Your task to perform on an android device: move a message to another label in the gmail app Image 0: 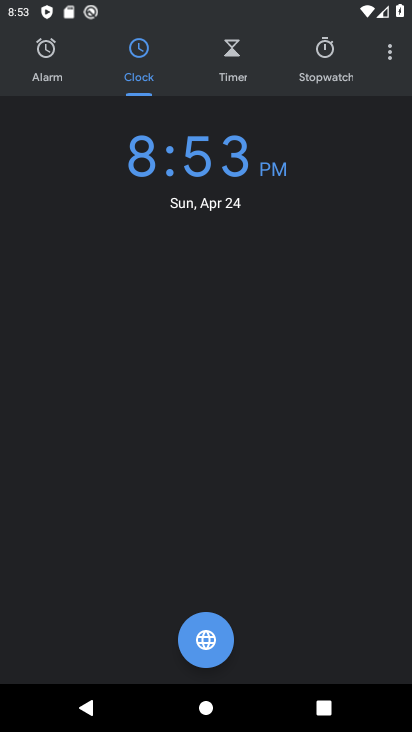
Step 0: press home button
Your task to perform on an android device: move a message to another label in the gmail app Image 1: 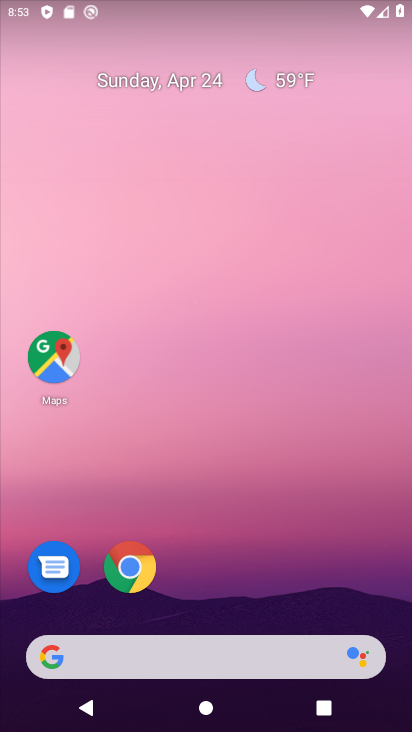
Step 1: drag from (377, 566) to (363, 115)
Your task to perform on an android device: move a message to another label in the gmail app Image 2: 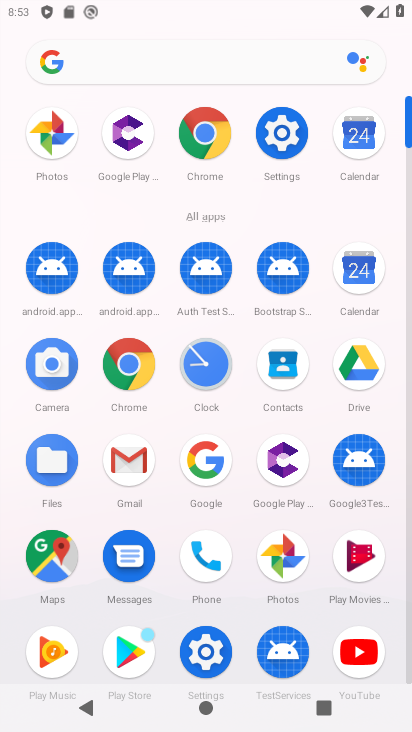
Step 2: click (112, 453)
Your task to perform on an android device: move a message to another label in the gmail app Image 3: 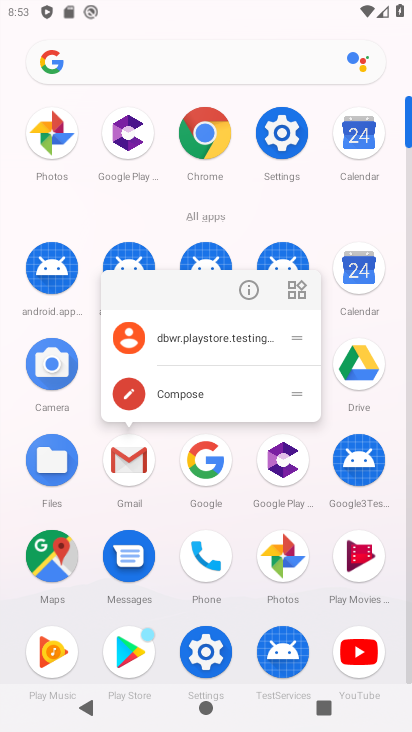
Step 3: click (133, 455)
Your task to perform on an android device: move a message to another label in the gmail app Image 4: 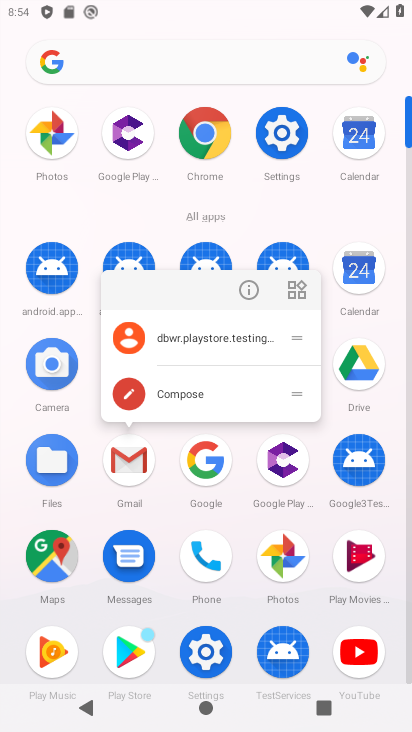
Step 4: click (133, 455)
Your task to perform on an android device: move a message to another label in the gmail app Image 5: 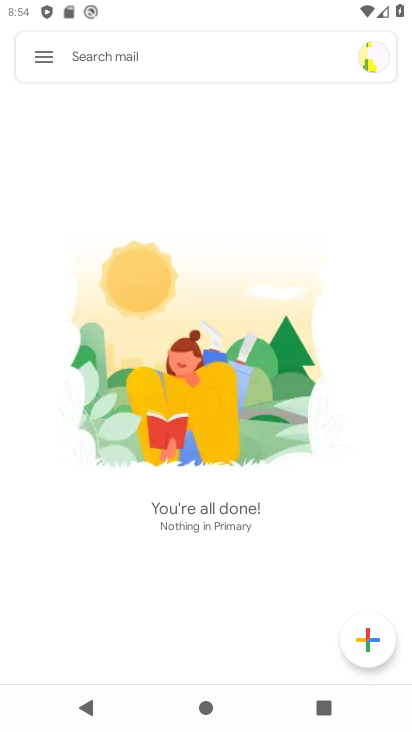
Step 5: click (46, 51)
Your task to perform on an android device: move a message to another label in the gmail app Image 6: 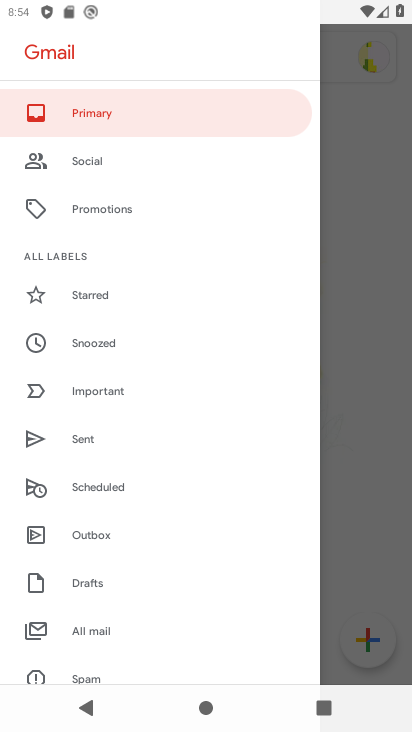
Step 6: click (97, 104)
Your task to perform on an android device: move a message to another label in the gmail app Image 7: 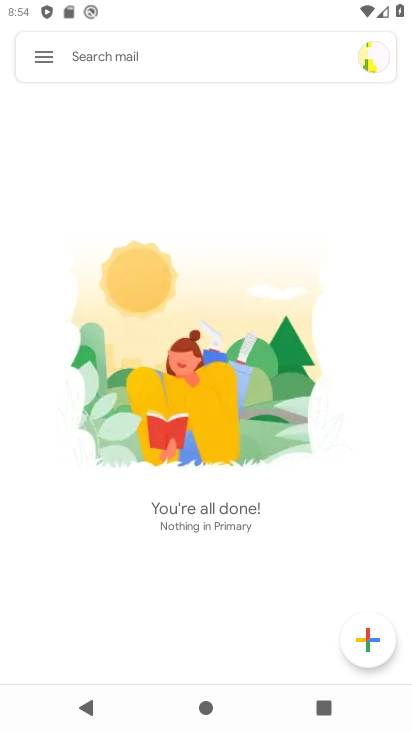
Step 7: task complete